Your task to perform on an android device: open the mobile data screen to see how much data has been used Image 0: 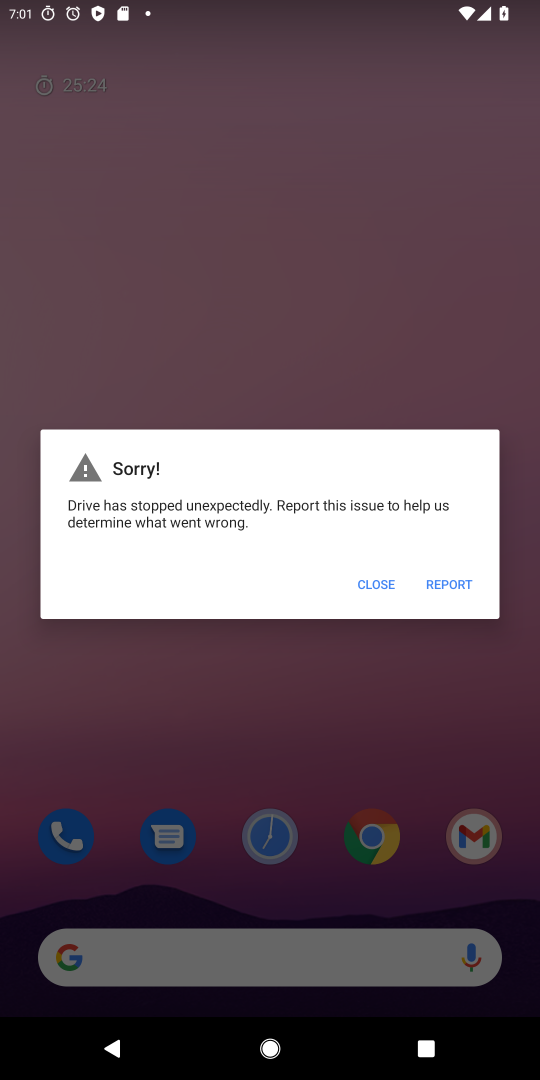
Step 0: click (387, 589)
Your task to perform on an android device: open the mobile data screen to see how much data has been used Image 1: 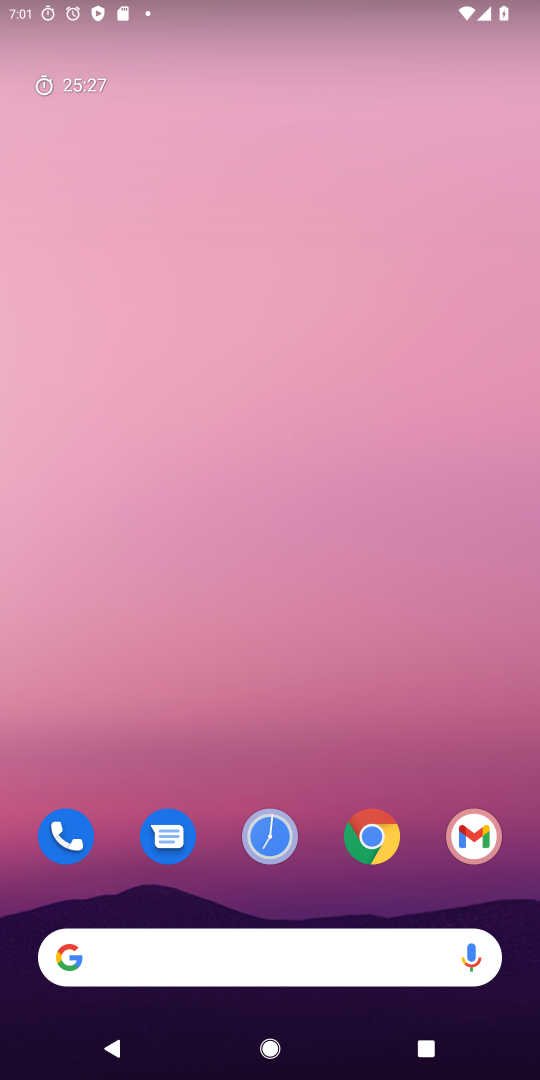
Step 1: drag from (324, 506) to (363, 15)
Your task to perform on an android device: open the mobile data screen to see how much data has been used Image 2: 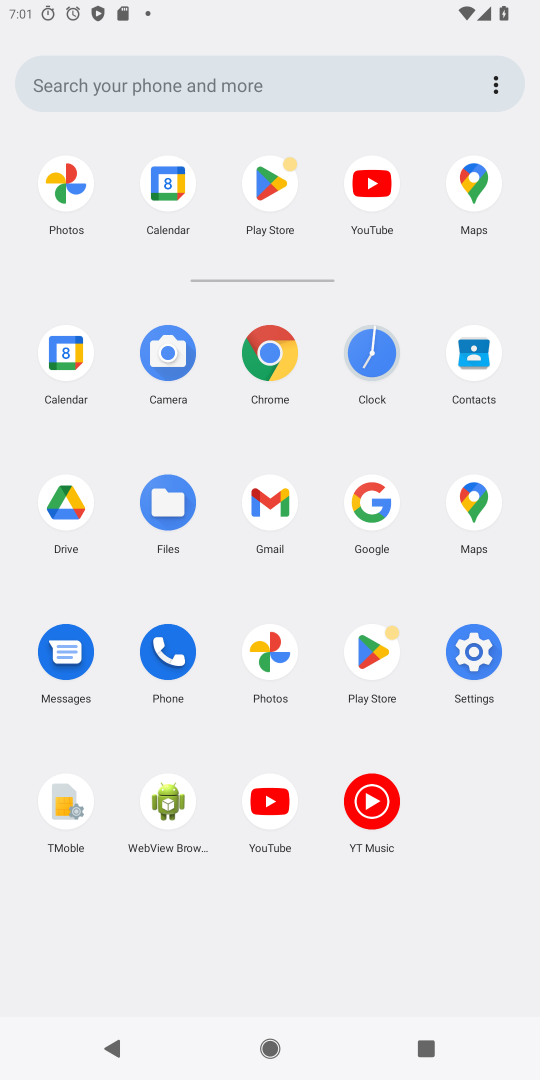
Step 2: click (493, 660)
Your task to perform on an android device: open the mobile data screen to see how much data has been used Image 3: 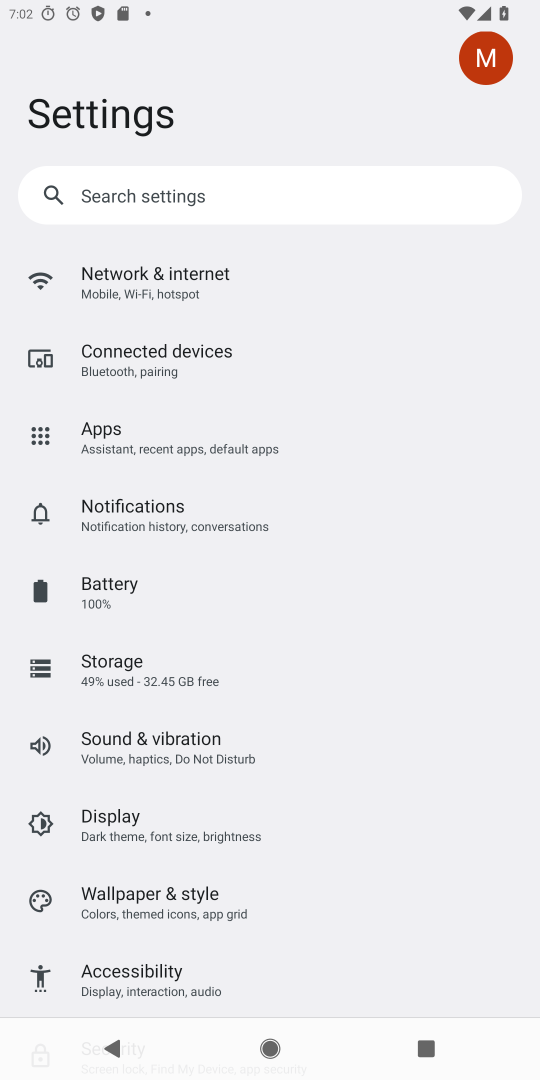
Step 3: click (480, 649)
Your task to perform on an android device: open the mobile data screen to see how much data has been used Image 4: 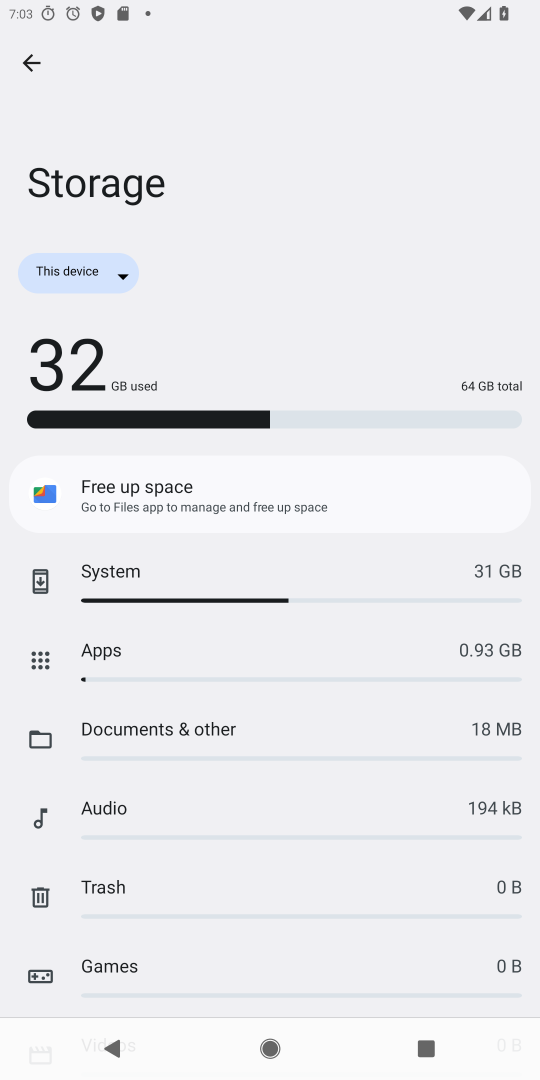
Step 4: press back button
Your task to perform on an android device: open the mobile data screen to see how much data has been used Image 5: 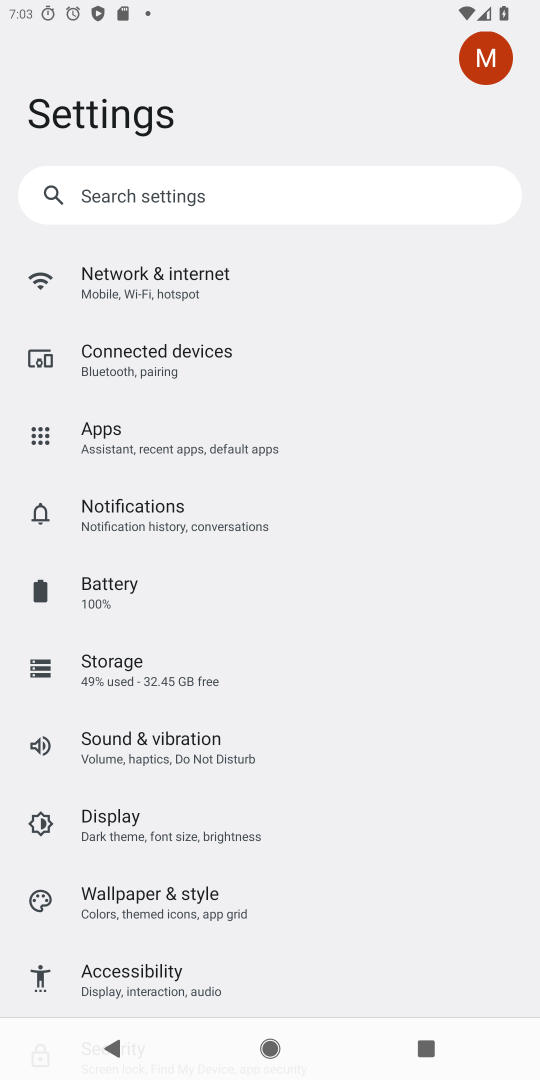
Step 5: click (308, 300)
Your task to perform on an android device: open the mobile data screen to see how much data has been used Image 6: 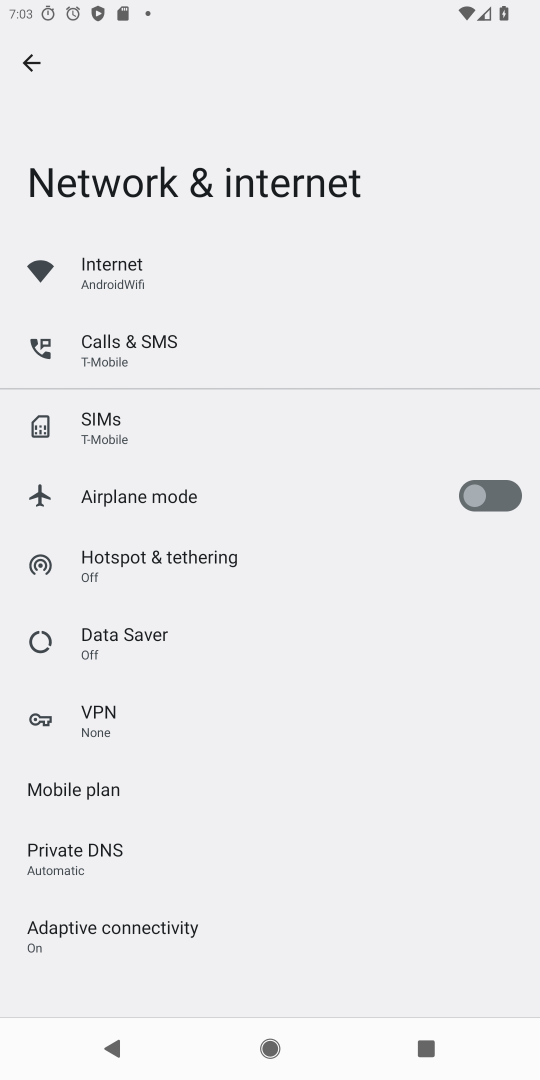
Step 6: click (178, 276)
Your task to perform on an android device: open the mobile data screen to see how much data has been used Image 7: 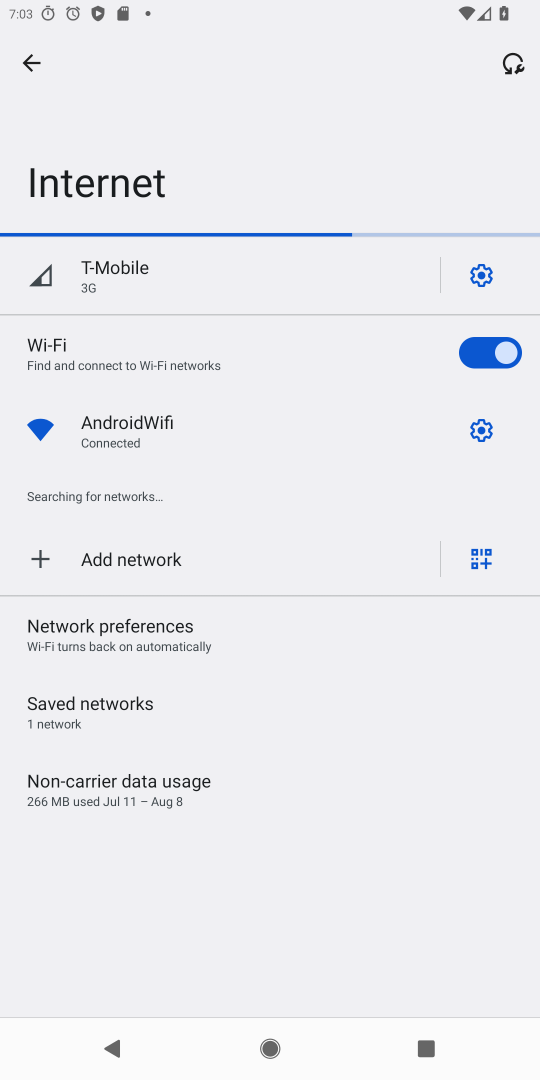
Step 7: click (158, 294)
Your task to perform on an android device: open the mobile data screen to see how much data has been used Image 8: 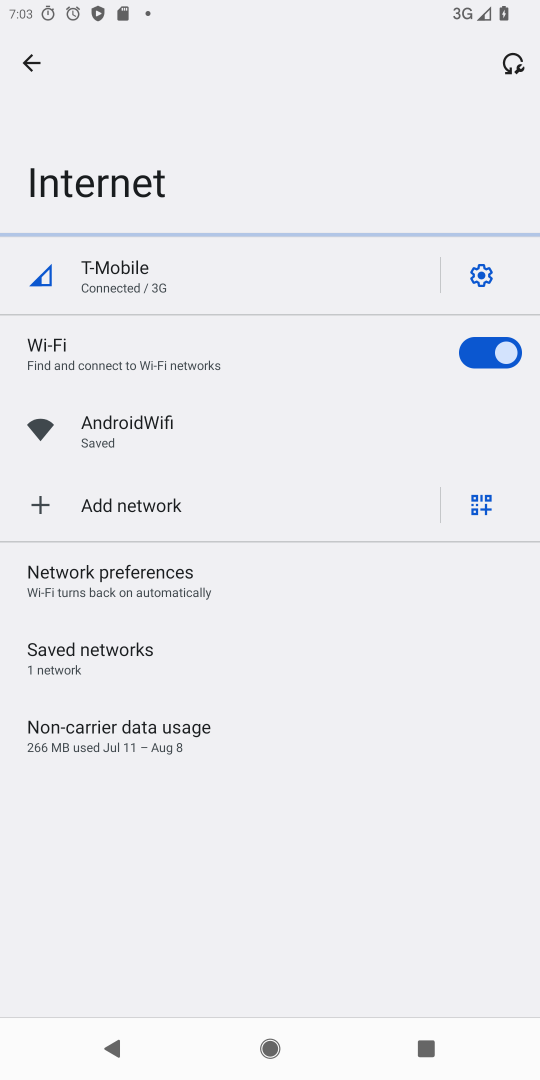
Step 8: click (223, 730)
Your task to perform on an android device: open the mobile data screen to see how much data has been used Image 9: 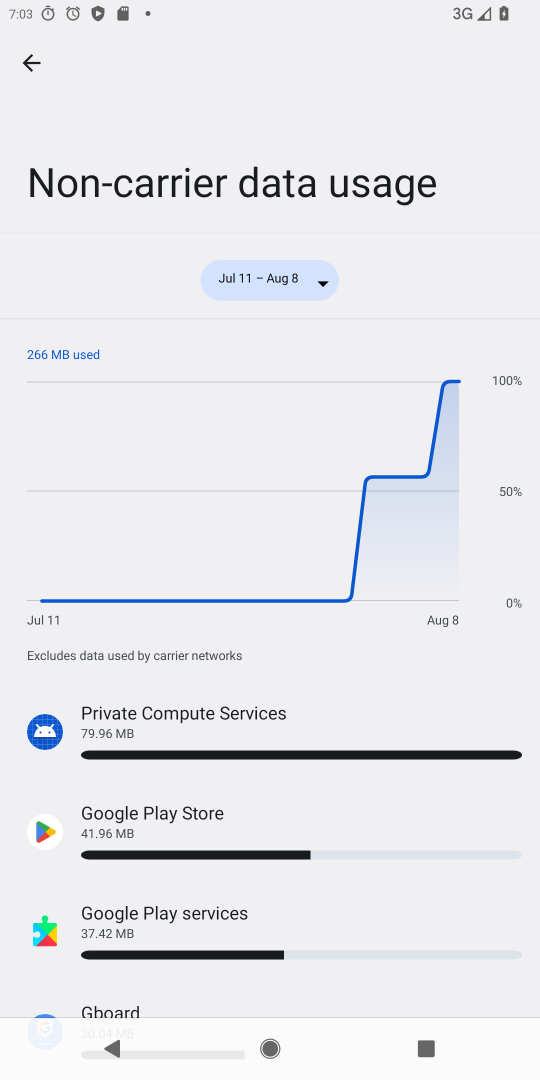
Step 9: task complete